Your task to perform on an android device: install app "Google Keep" Image 0: 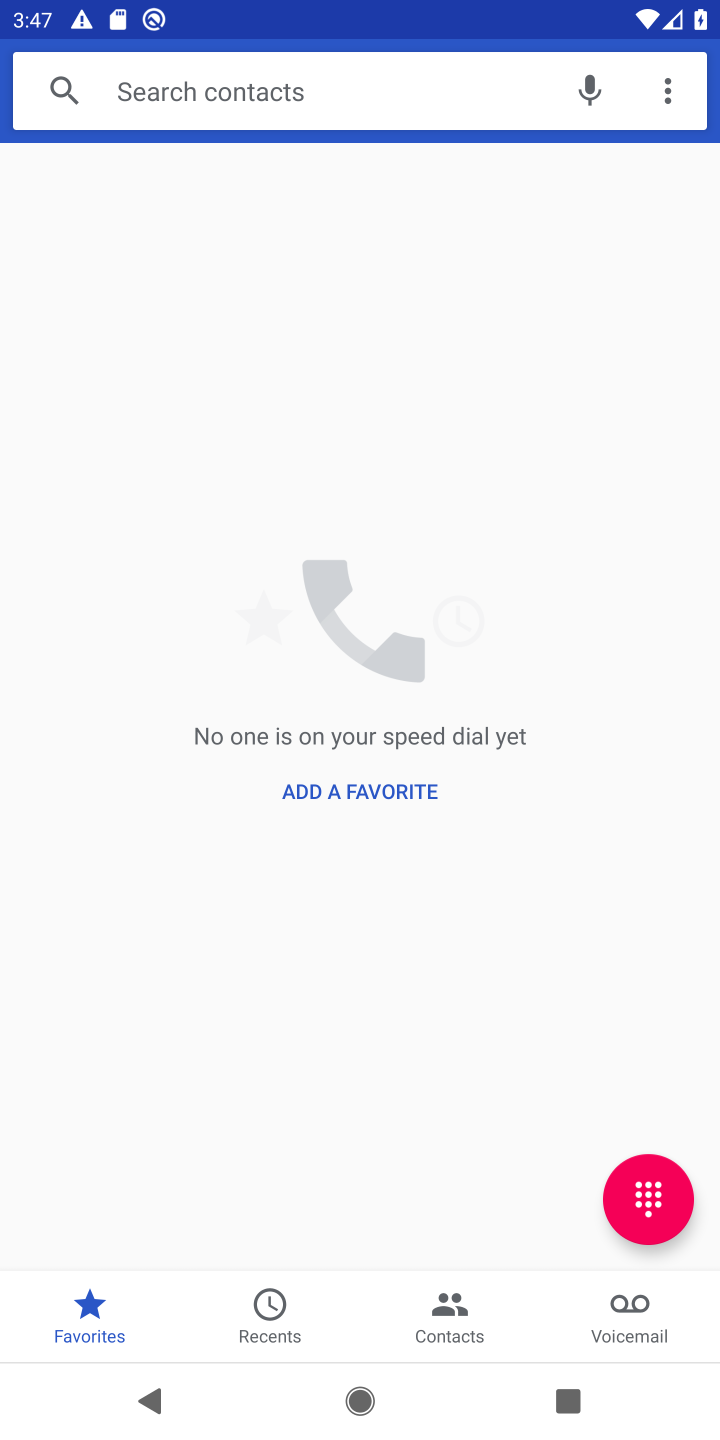
Step 0: press home button
Your task to perform on an android device: install app "Google Keep" Image 1: 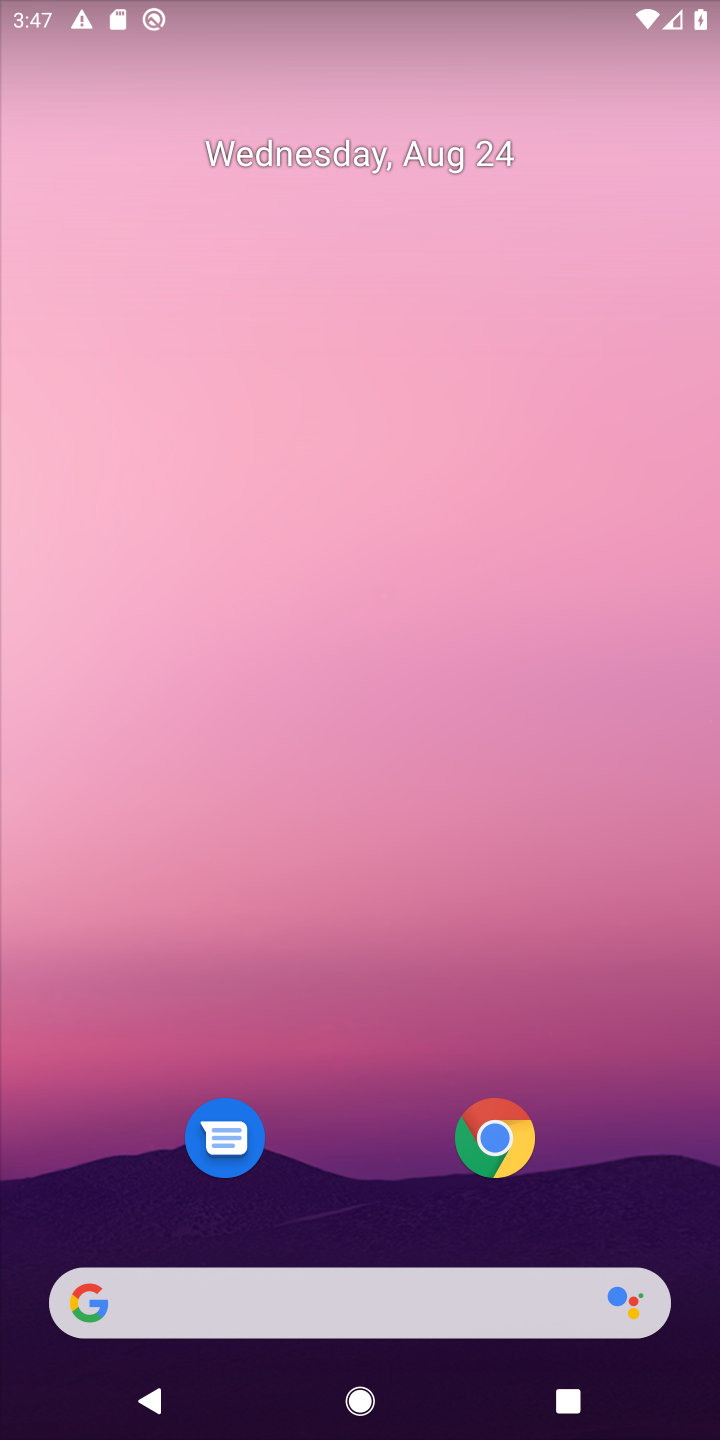
Step 1: drag from (362, 612) to (362, 437)
Your task to perform on an android device: install app "Google Keep" Image 2: 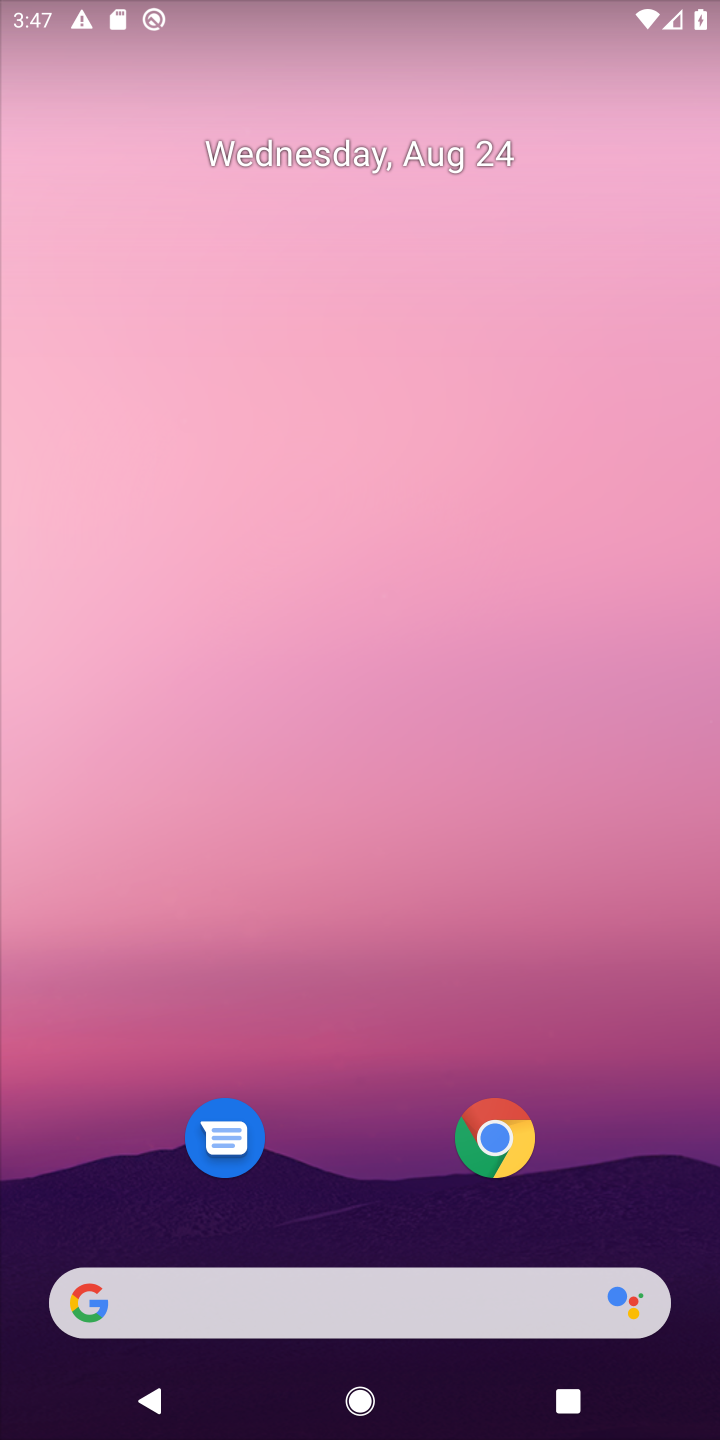
Step 2: drag from (349, 1246) to (388, 28)
Your task to perform on an android device: install app "Google Keep" Image 3: 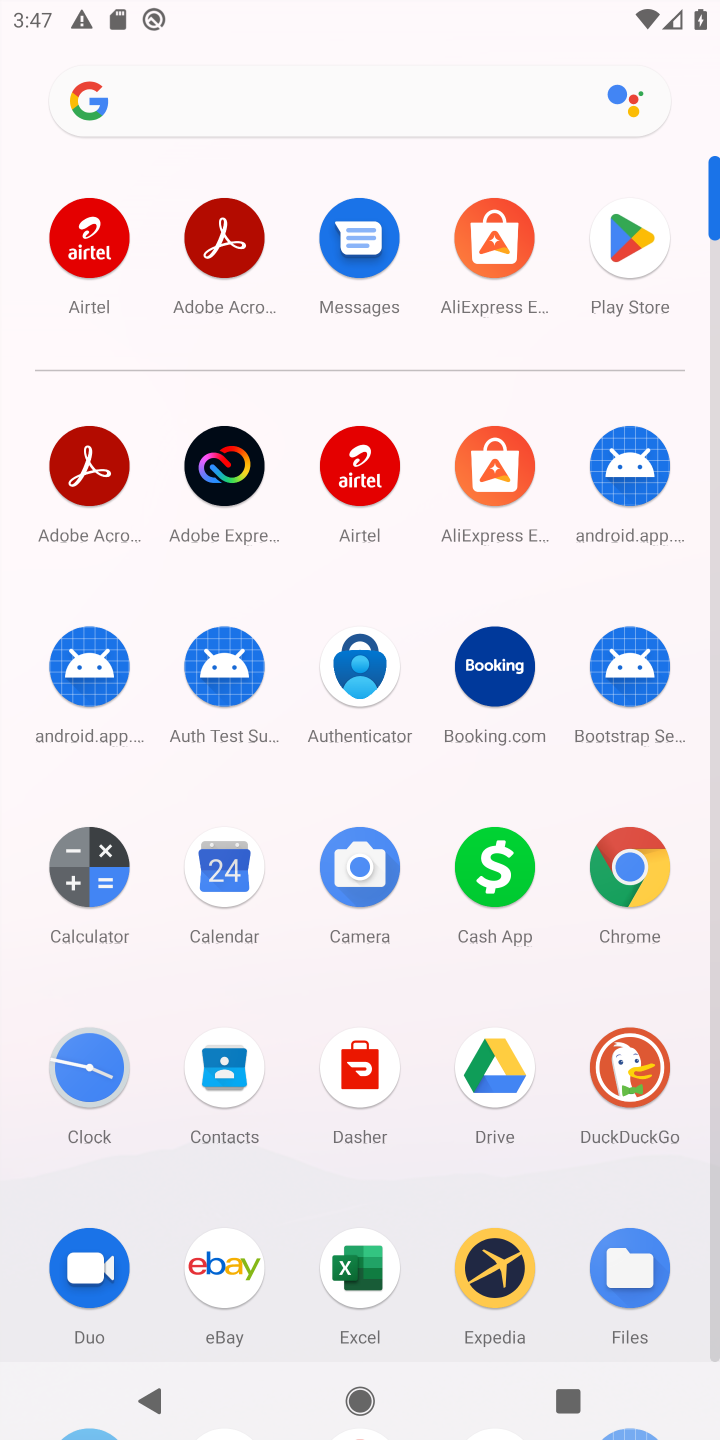
Step 3: click (632, 241)
Your task to perform on an android device: install app "Google Keep" Image 4: 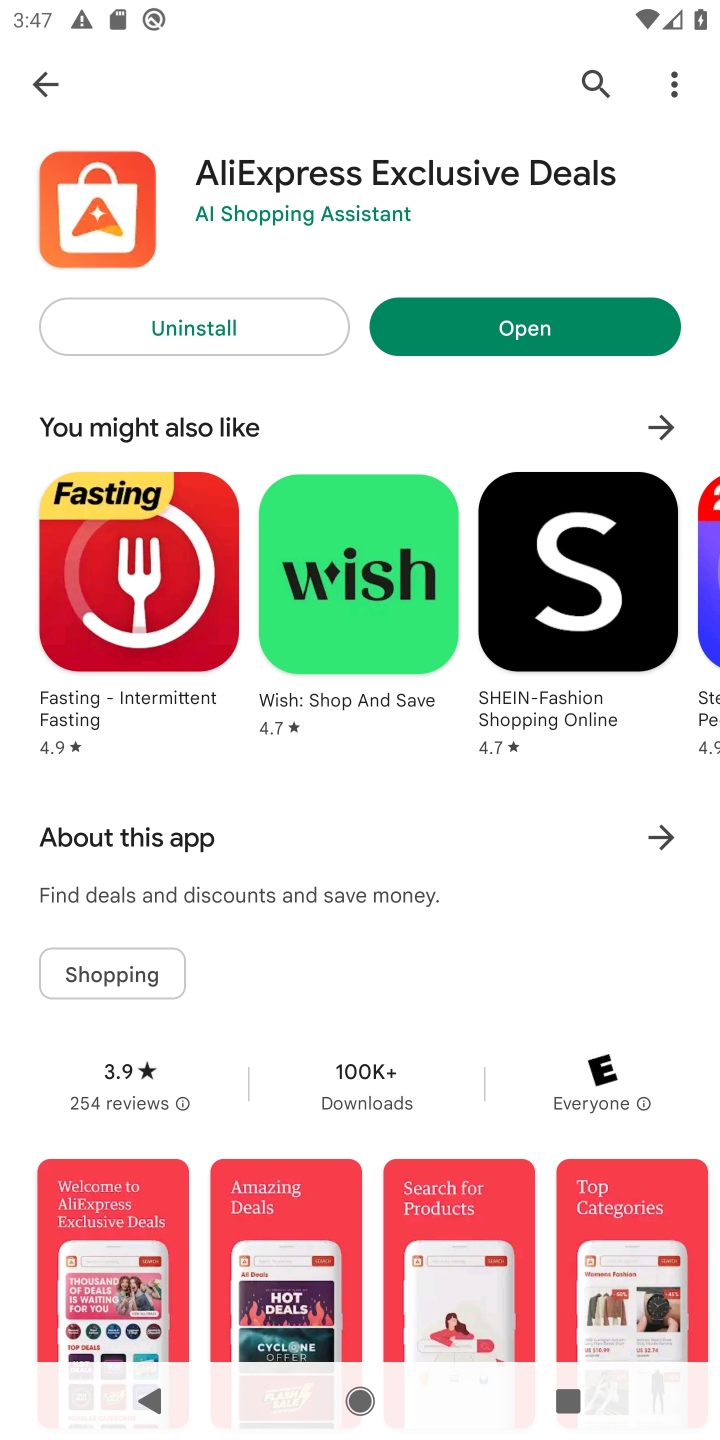
Step 4: click (586, 79)
Your task to perform on an android device: install app "Google Keep" Image 5: 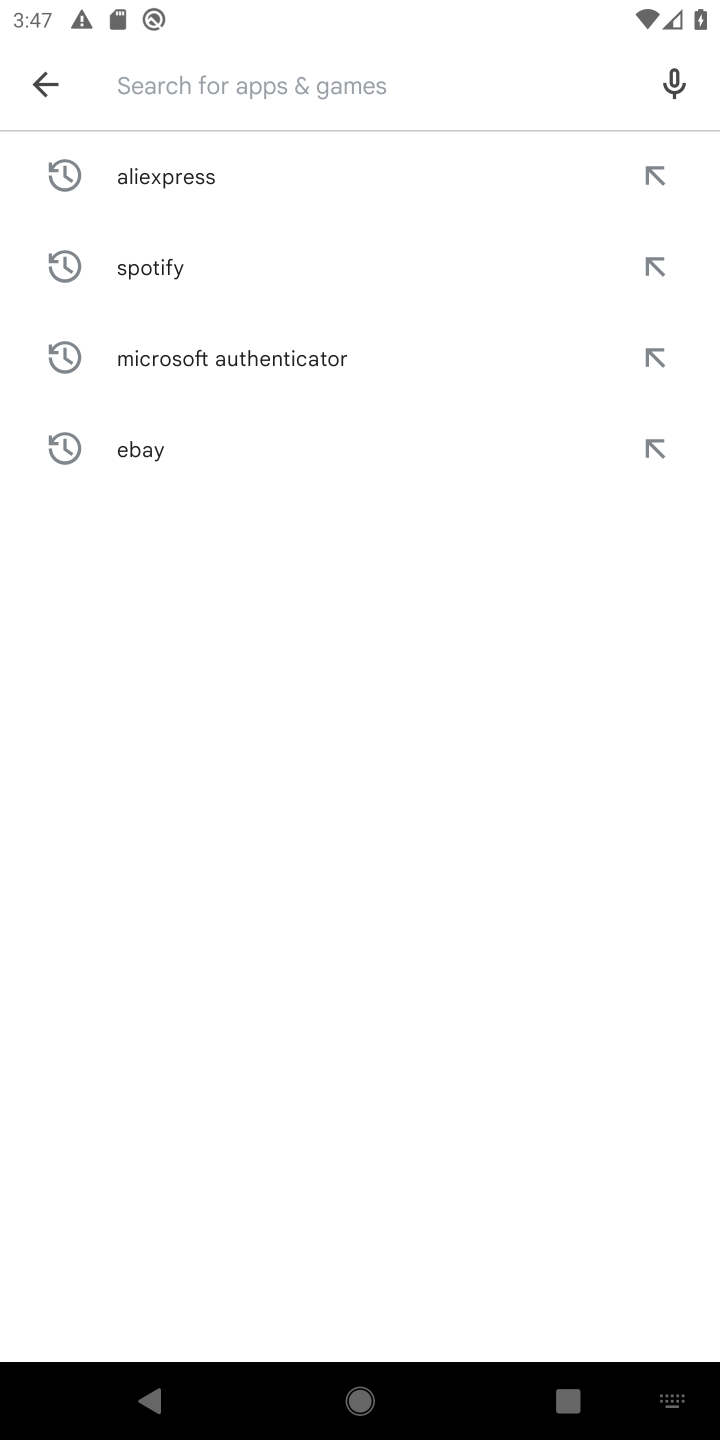
Step 5: type "Google Keep"
Your task to perform on an android device: install app "Google Keep" Image 6: 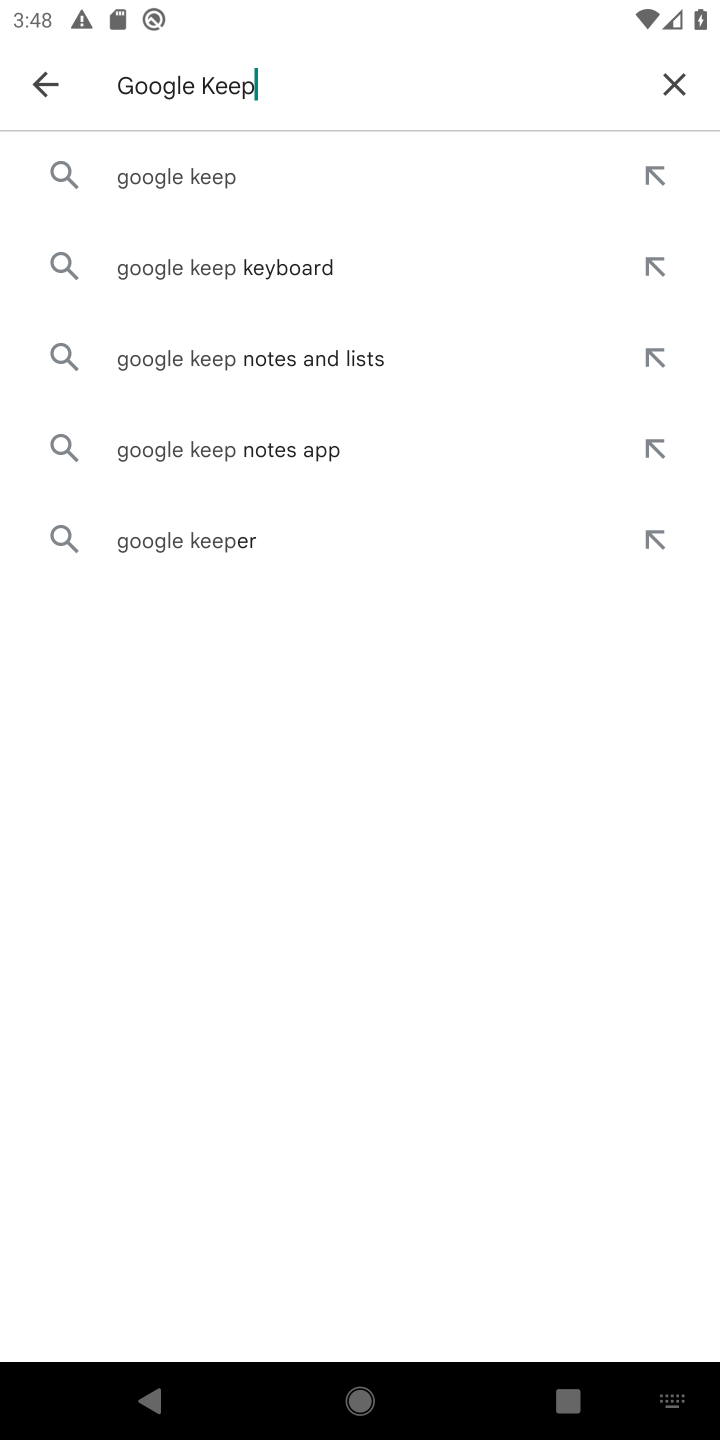
Step 6: click (201, 176)
Your task to perform on an android device: install app "Google Keep" Image 7: 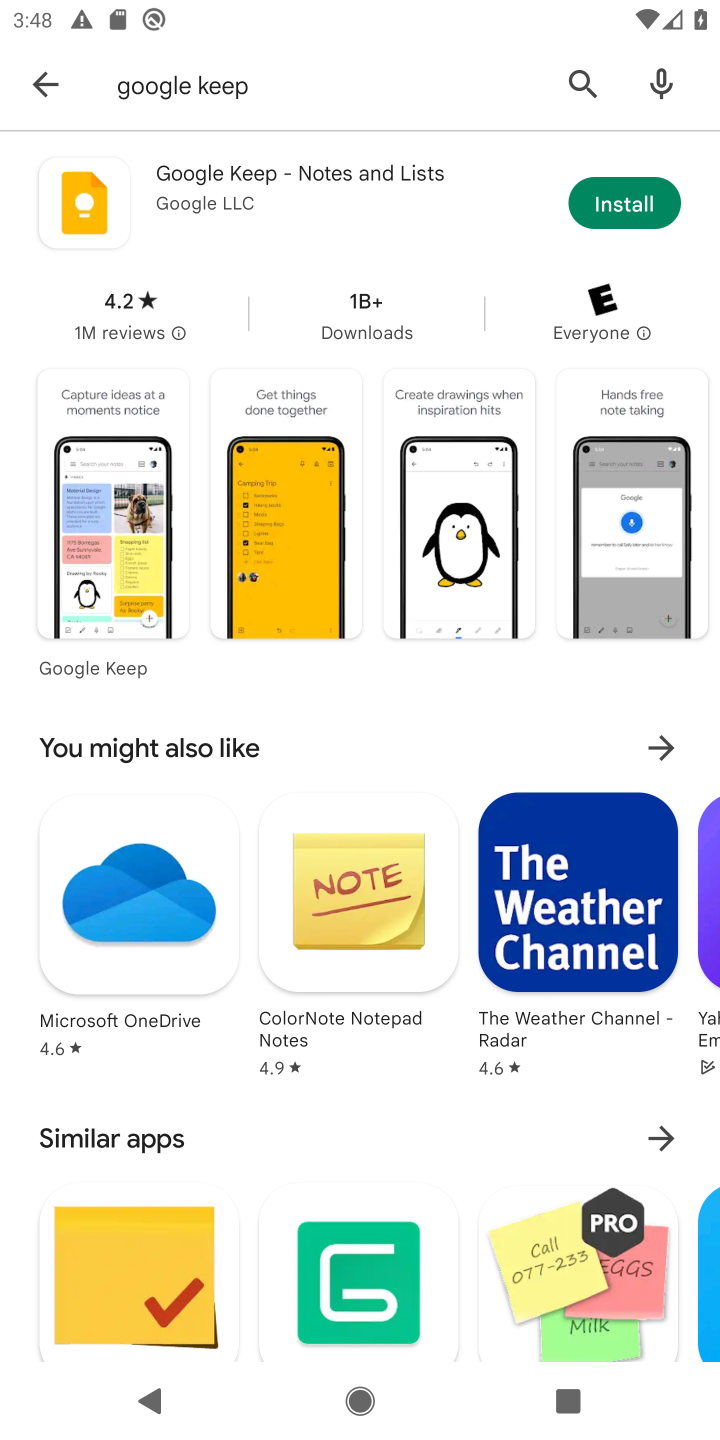
Step 7: click (627, 203)
Your task to perform on an android device: install app "Google Keep" Image 8: 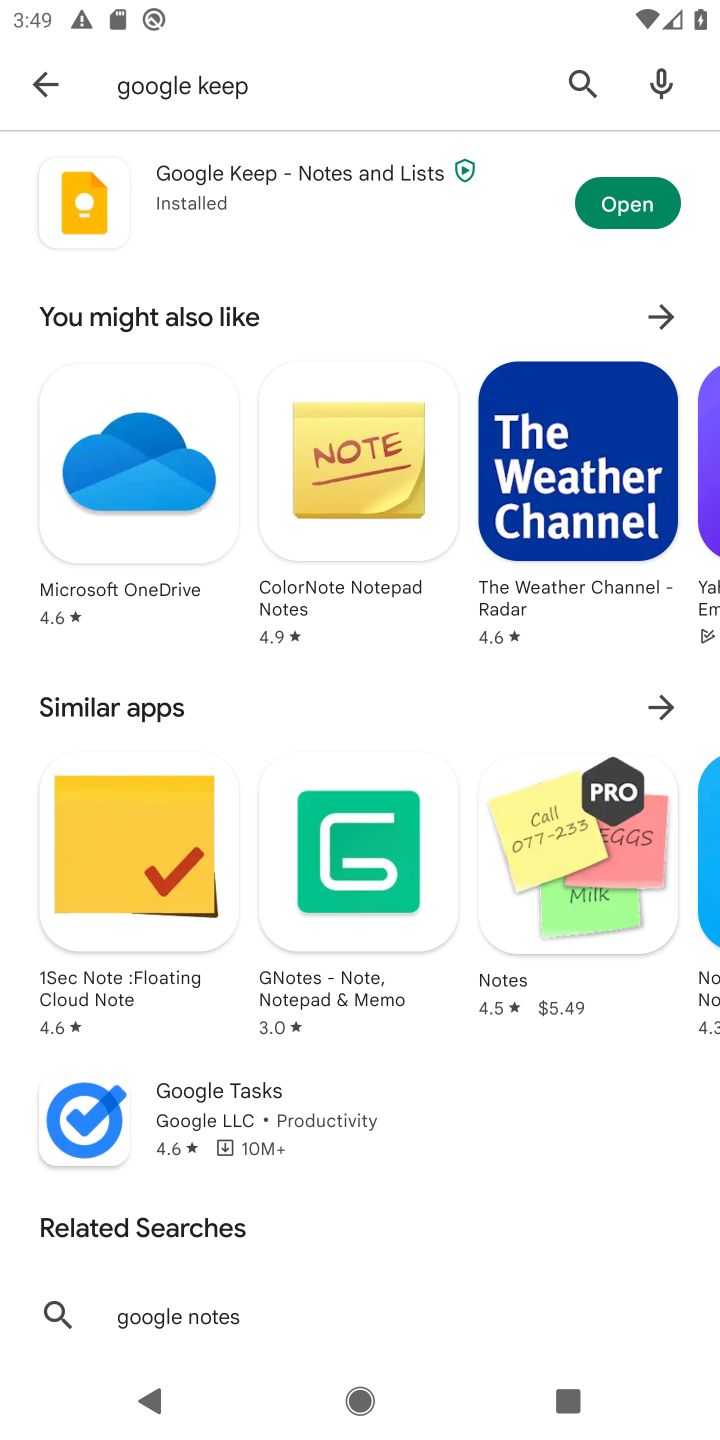
Step 8: task complete